Your task to perform on an android device: set default search engine in the chrome app Image 0: 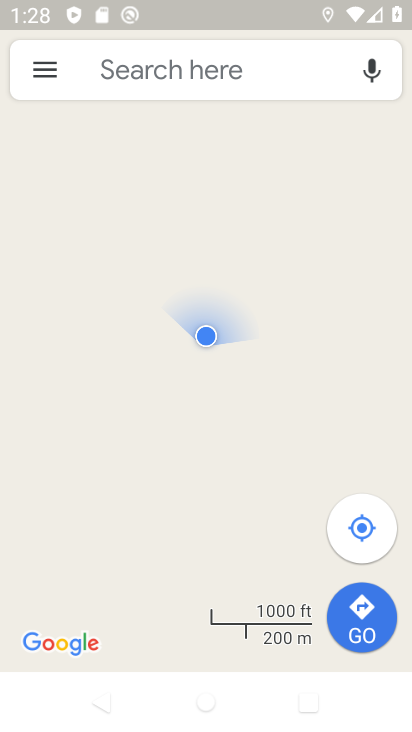
Step 0: press home button
Your task to perform on an android device: set default search engine in the chrome app Image 1: 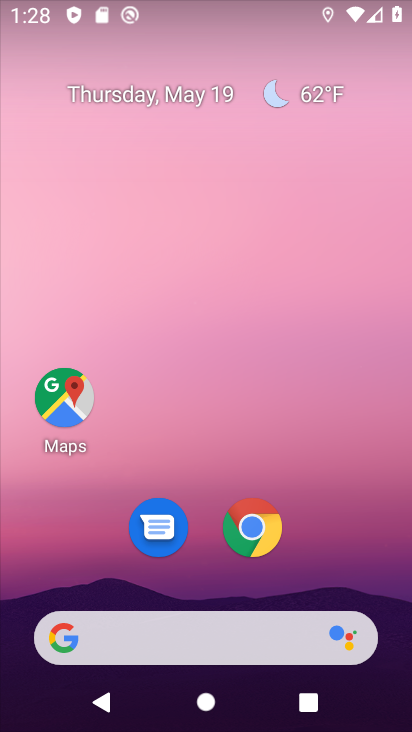
Step 1: drag from (391, 494) to (406, 98)
Your task to perform on an android device: set default search engine in the chrome app Image 2: 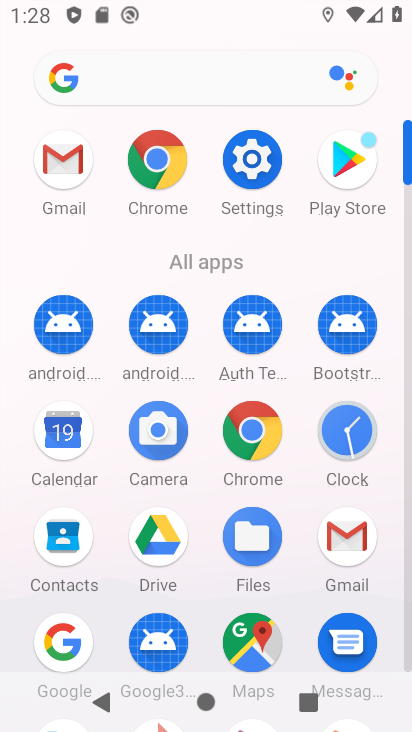
Step 2: click (253, 441)
Your task to perform on an android device: set default search engine in the chrome app Image 3: 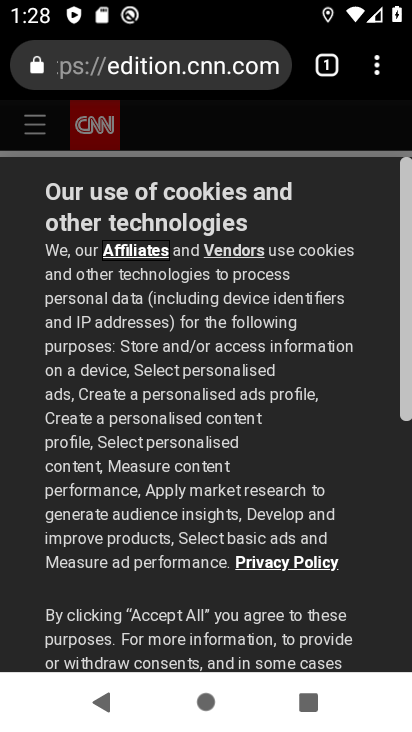
Step 3: drag from (375, 71) to (192, 581)
Your task to perform on an android device: set default search engine in the chrome app Image 4: 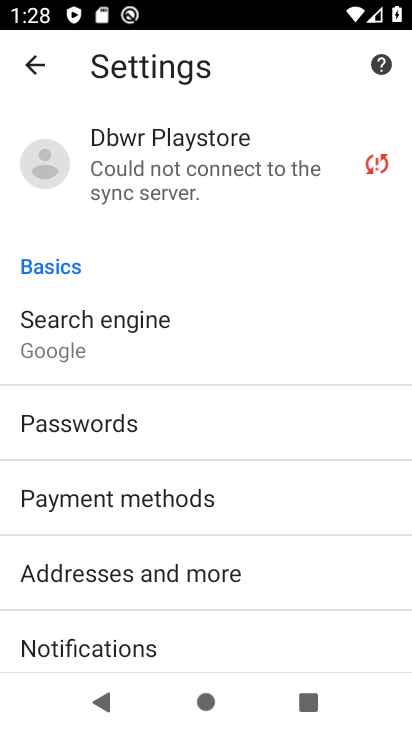
Step 4: click (75, 329)
Your task to perform on an android device: set default search engine in the chrome app Image 5: 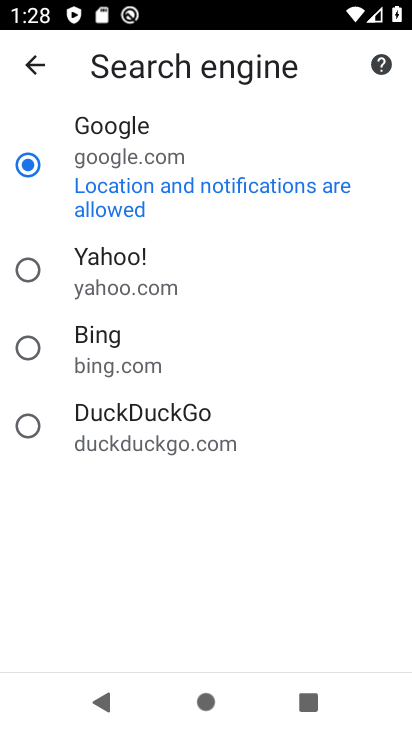
Step 5: click (35, 267)
Your task to perform on an android device: set default search engine in the chrome app Image 6: 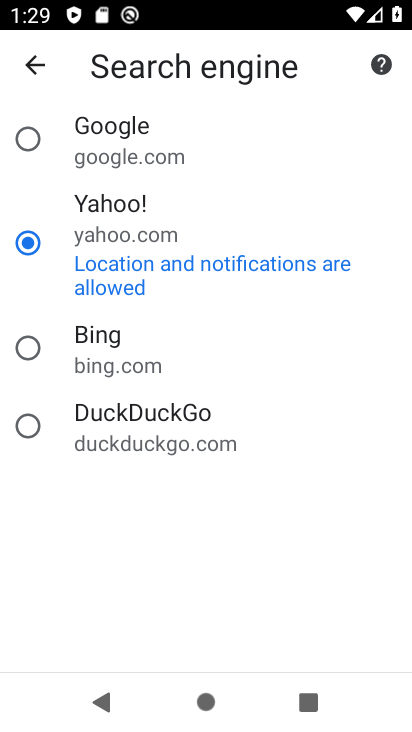
Step 6: task complete